Your task to perform on an android device: Show me recent news Image 0: 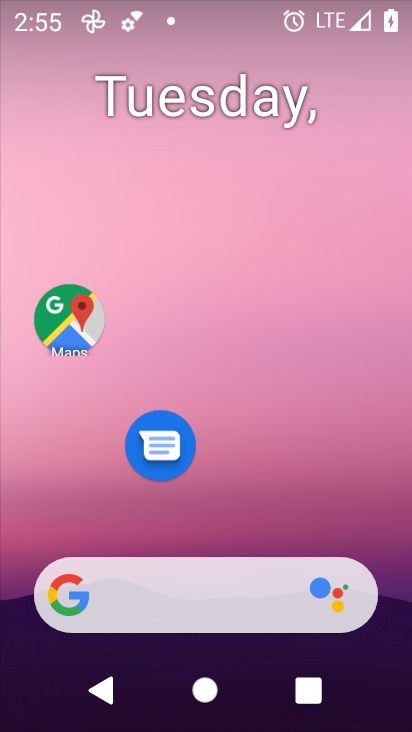
Step 0: drag from (5, 180) to (352, 204)
Your task to perform on an android device: Show me recent news Image 1: 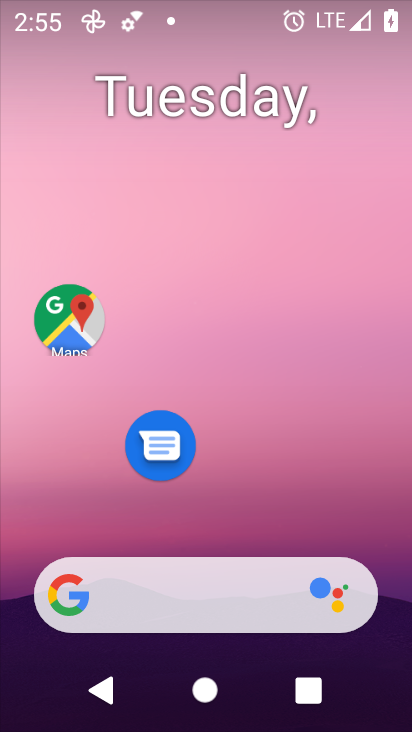
Step 1: task complete